Your task to perform on an android device: Open internet settings Image 0: 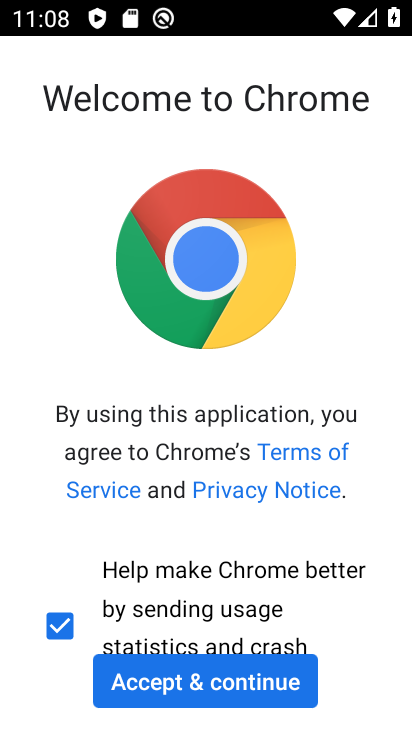
Step 0: press home button
Your task to perform on an android device: Open internet settings Image 1: 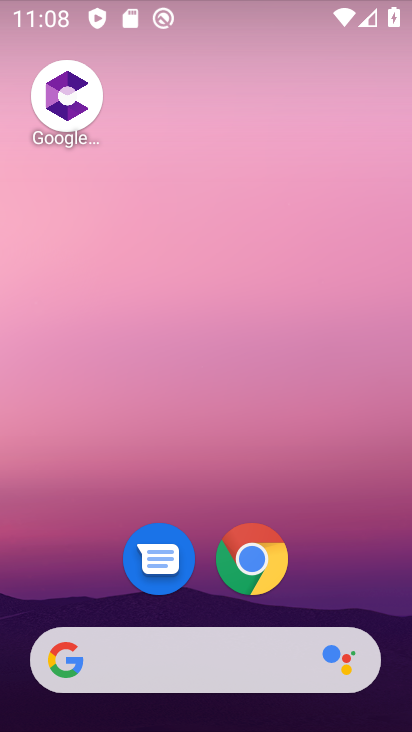
Step 1: drag from (318, 536) to (322, 148)
Your task to perform on an android device: Open internet settings Image 2: 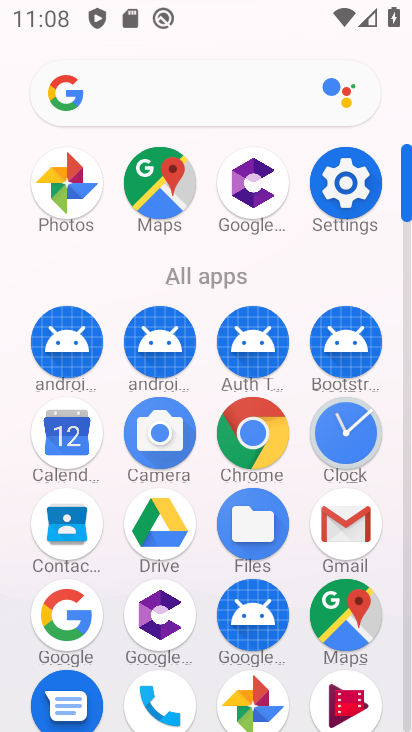
Step 2: click (355, 191)
Your task to perform on an android device: Open internet settings Image 3: 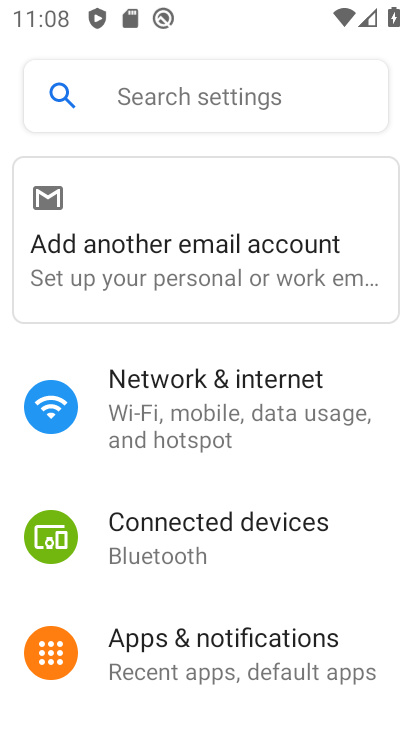
Step 3: click (291, 397)
Your task to perform on an android device: Open internet settings Image 4: 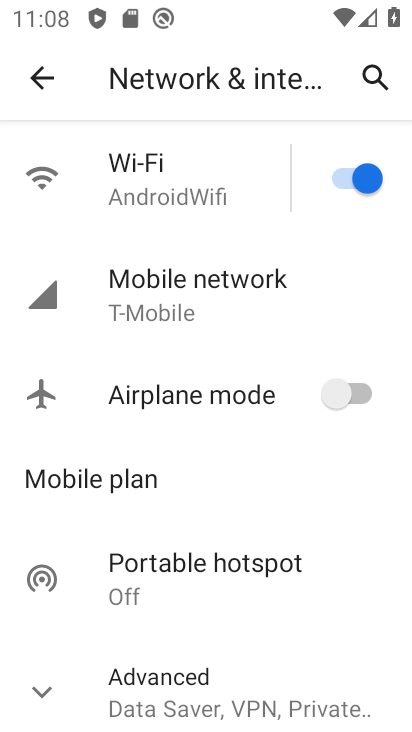
Step 4: task complete